Your task to perform on an android device: toggle data saver in the chrome app Image 0: 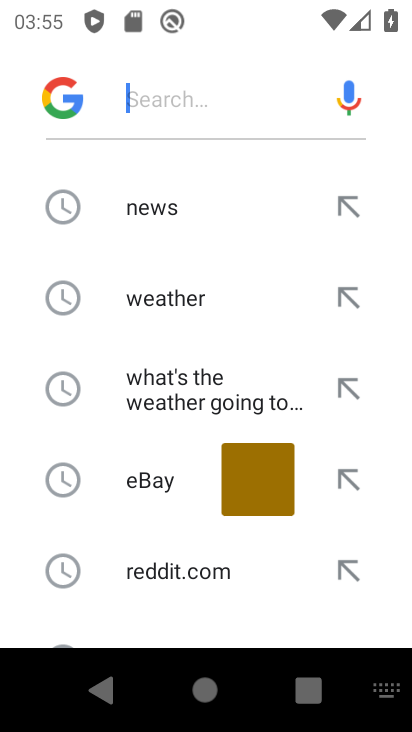
Step 0: press home button
Your task to perform on an android device: toggle data saver in the chrome app Image 1: 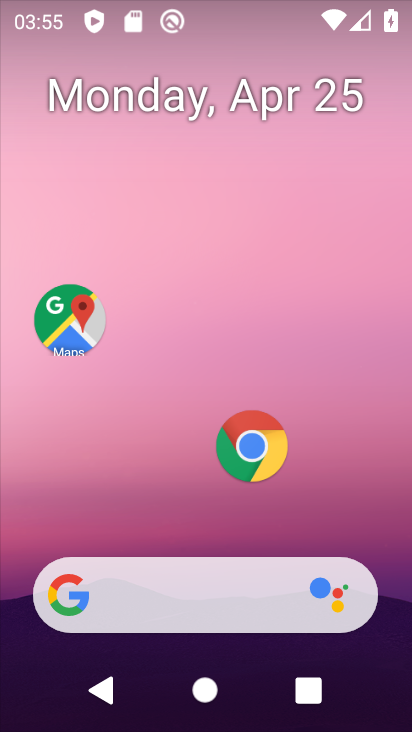
Step 1: click (256, 444)
Your task to perform on an android device: toggle data saver in the chrome app Image 2: 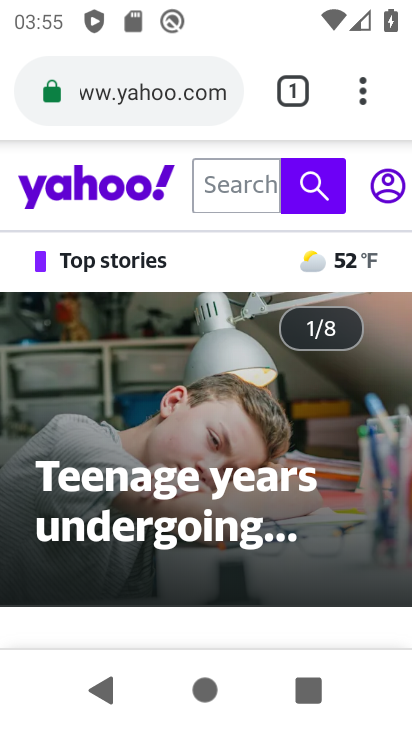
Step 2: click (361, 98)
Your task to perform on an android device: toggle data saver in the chrome app Image 3: 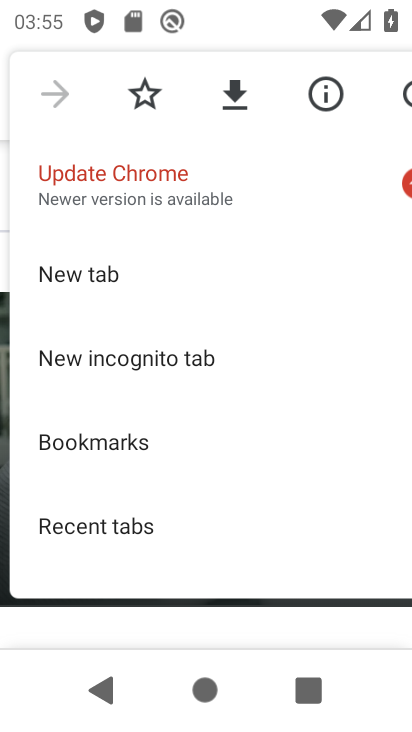
Step 3: drag from (85, 481) to (151, 153)
Your task to perform on an android device: toggle data saver in the chrome app Image 4: 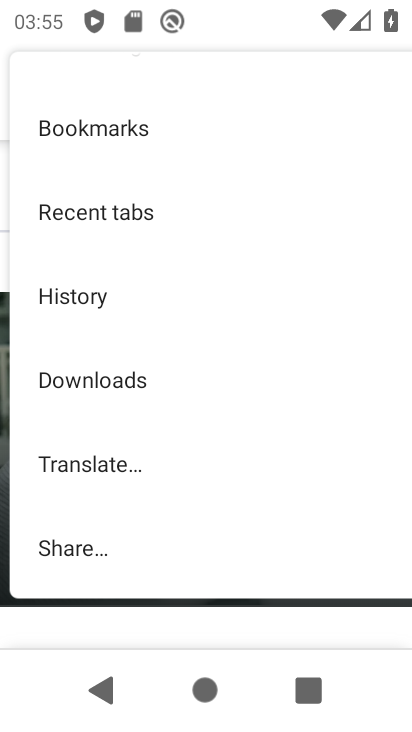
Step 4: drag from (81, 505) to (134, 166)
Your task to perform on an android device: toggle data saver in the chrome app Image 5: 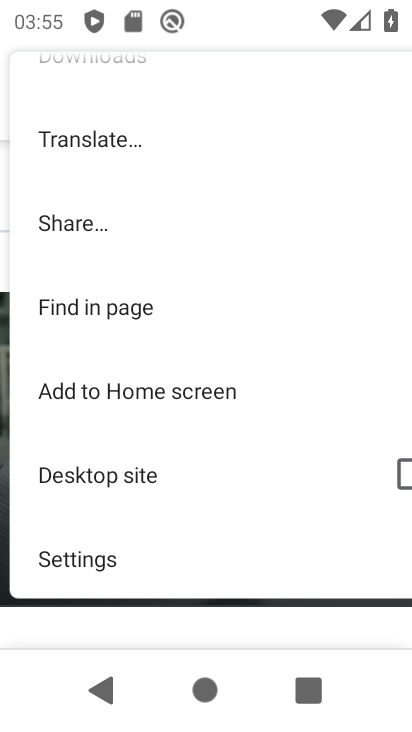
Step 5: click (87, 578)
Your task to perform on an android device: toggle data saver in the chrome app Image 6: 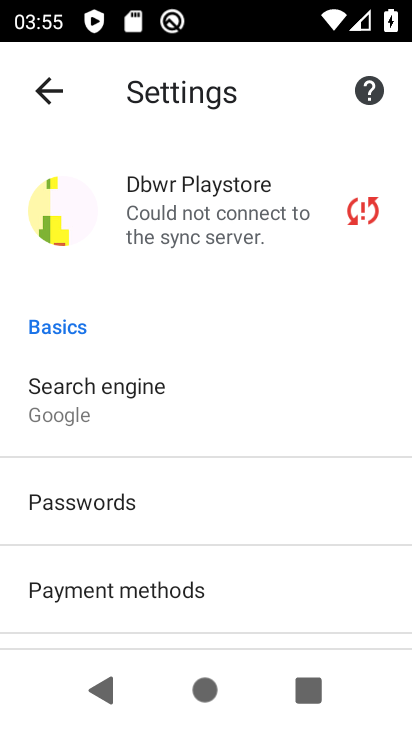
Step 6: drag from (77, 605) to (162, 169)
Your task to perform on an android device: toggle data saver in the chrome app Image 7: 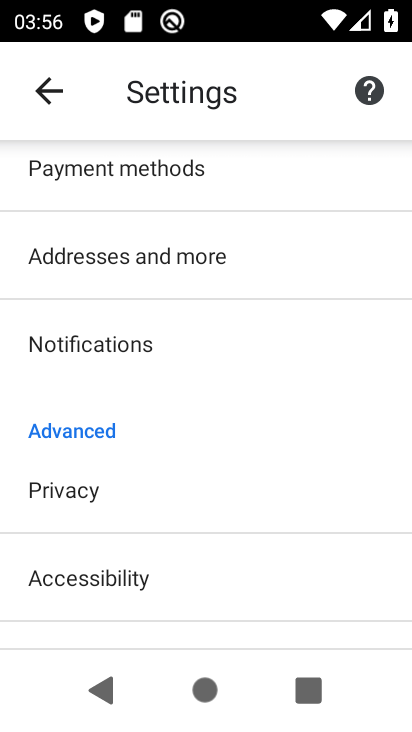
Step 7: drag from (136, 537) to (160, 288)
Your task to perform on an android device: toggle data saver in the chrome app Image 8: 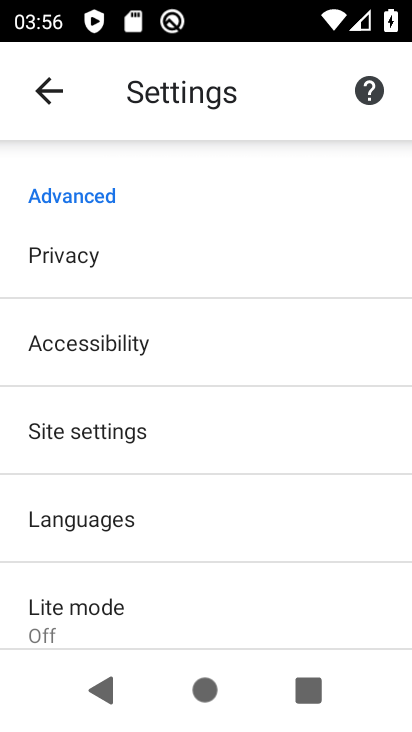
Step 8: click (157, 626)
Your task to perform on an android device: toggle data saver in the chrome app Image 9: 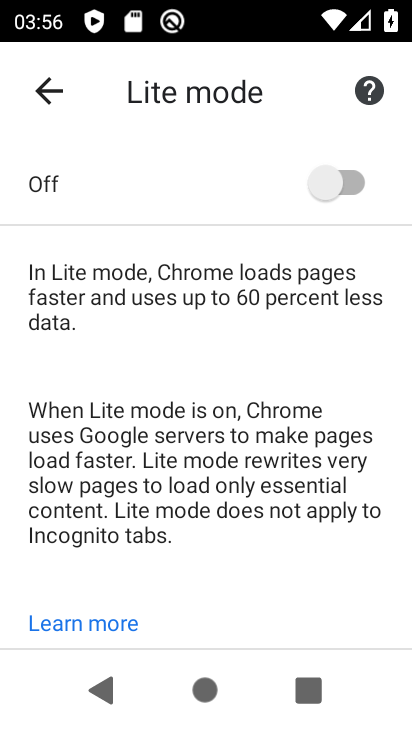
Step 9: click (351, 189)
Your task to perform on an android device: toggle data saver in the chrome app Image 10: 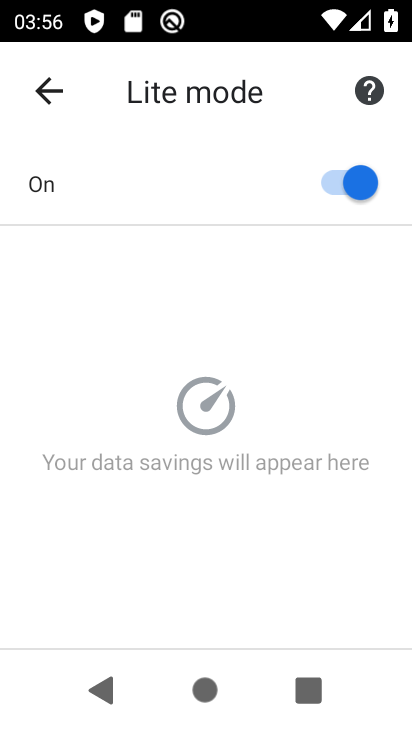
Step 10: click (351, 189)
Your task to perform on an android device: toggle data saver in the chrome app Image 11: 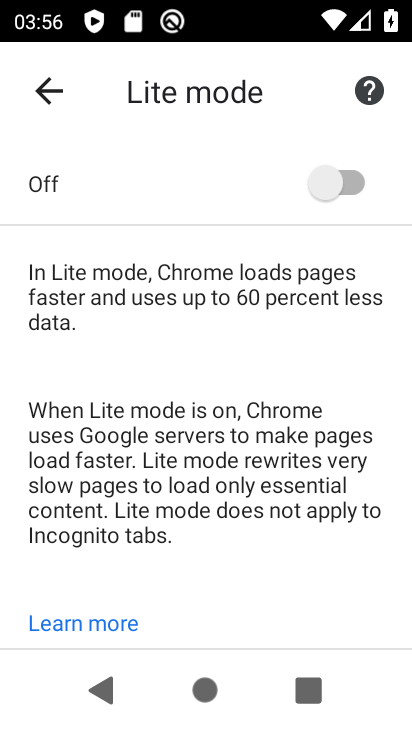
Step 11: task complete